Your task to perform on an android device: set default search engine in the chrome app Image 0: 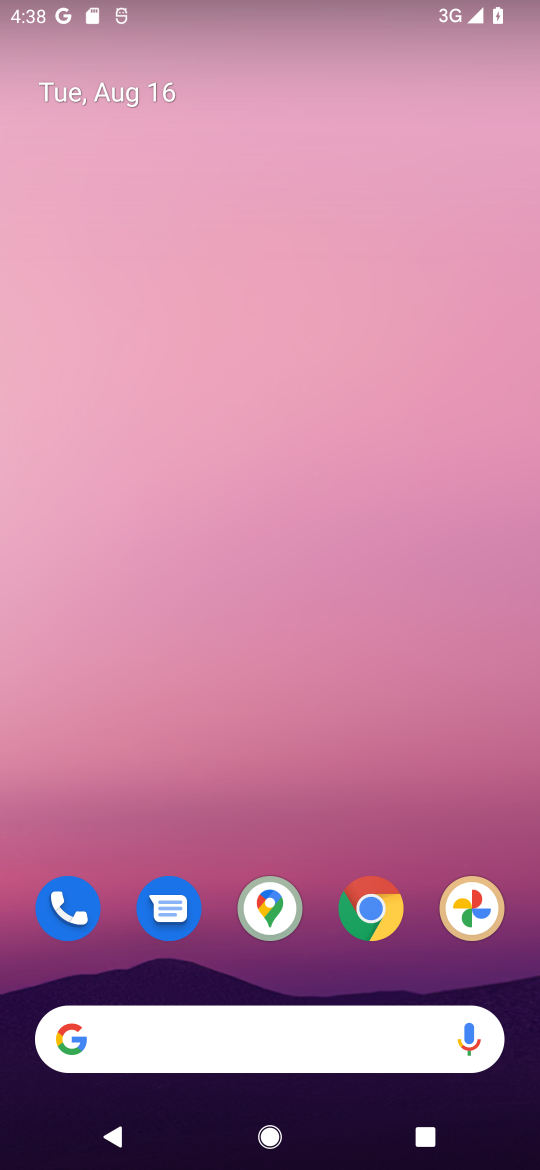
Step 0: click (364, 894)
Your task to perform on an android device: set default search engine in the chrome app Image 1: 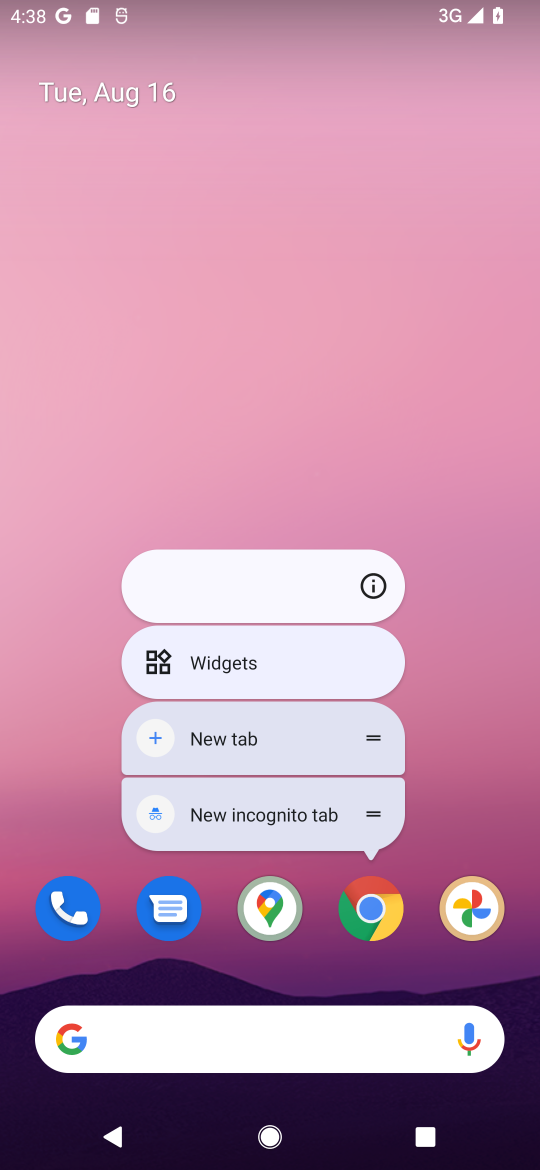
Step 1: click (366, 918)
Your task to perform on an android device: set default search engine in the chrome app Image 2: 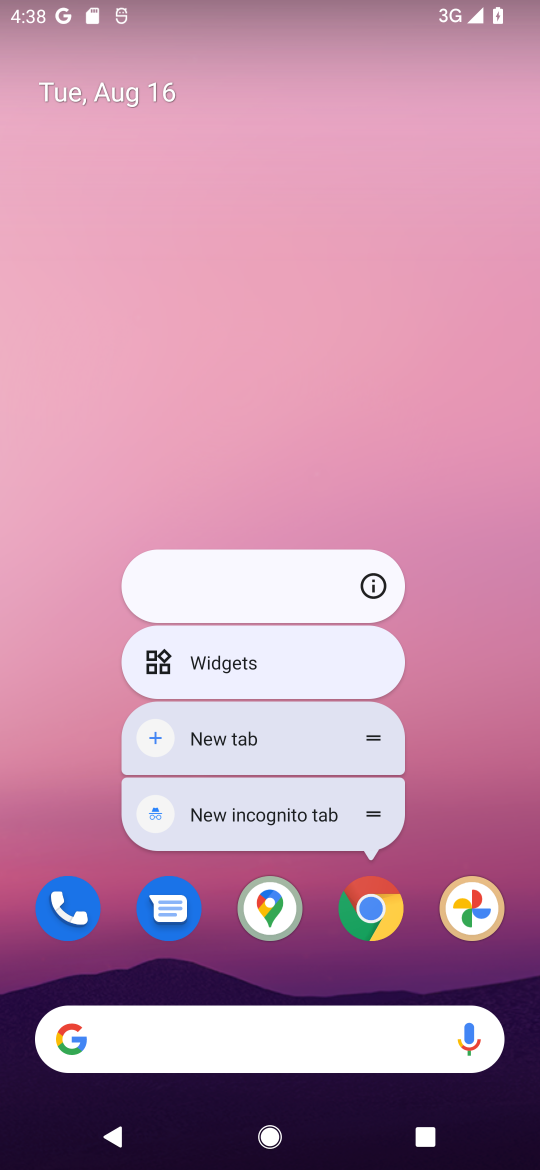
Step 2: click (368, 901)
Your task to perform on an android device: set default search engine in the chrome app Image 3: 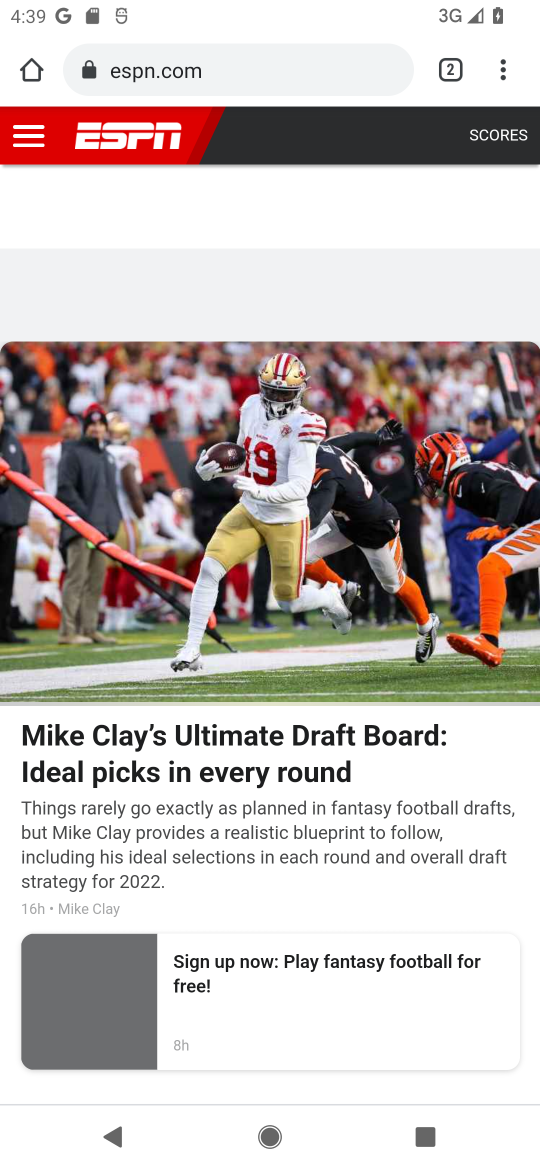
Step 3: drag from (507, 61) to (332, 964)
Your task to perform on an android device: set default search engine in the chrome app Image 4: 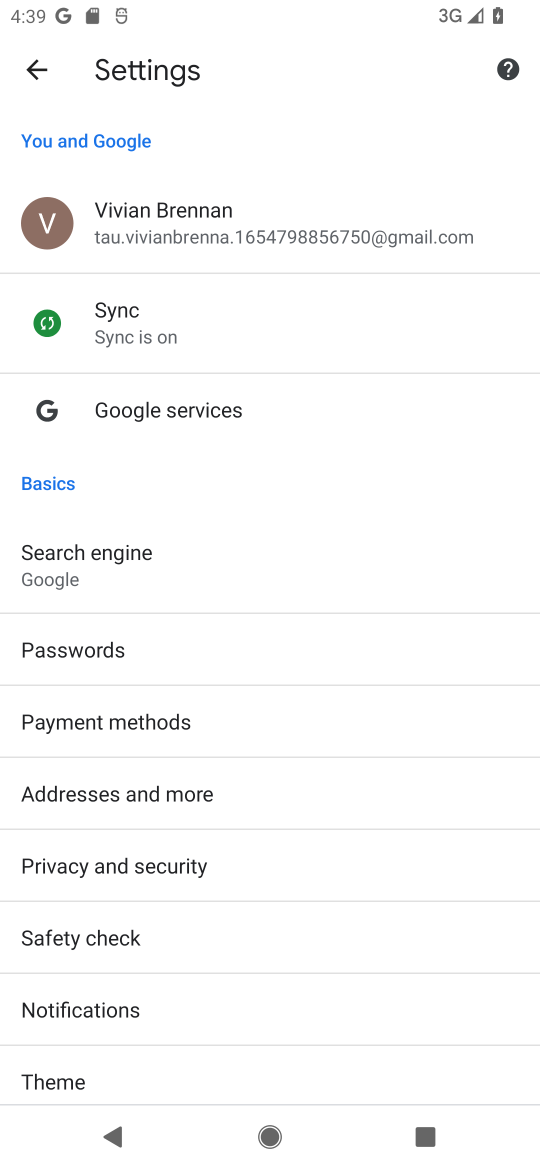
Step 4: drag from (191, 1048) to (313, 637)
Your task to perform on an android device: set default search engine in the chrome app Image 5: 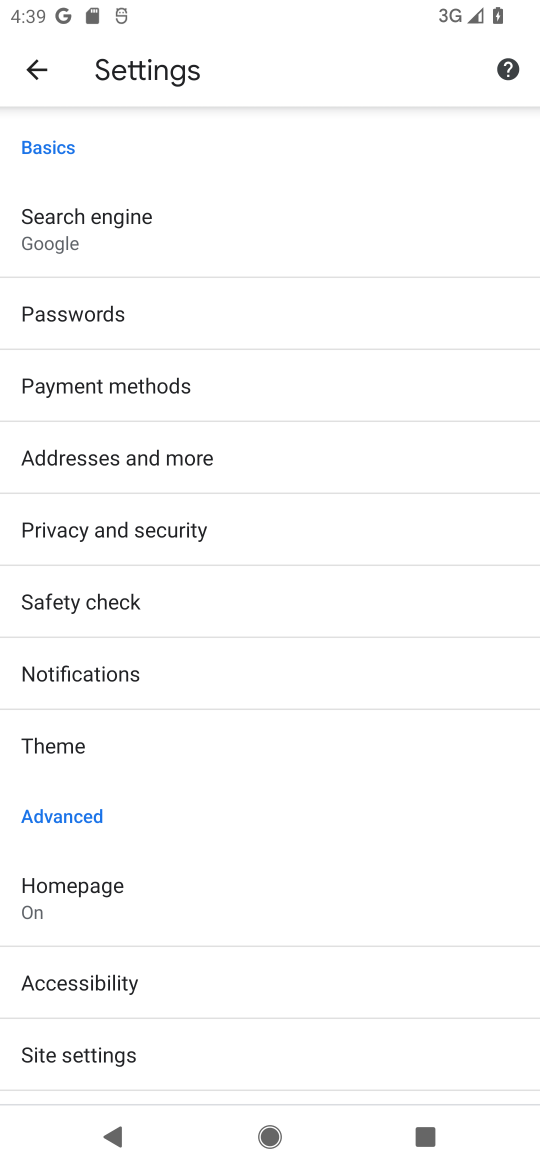
Step 5: click (94, 213)
Your task to perform on an android device: set default search engine in the chrome app Image 6: 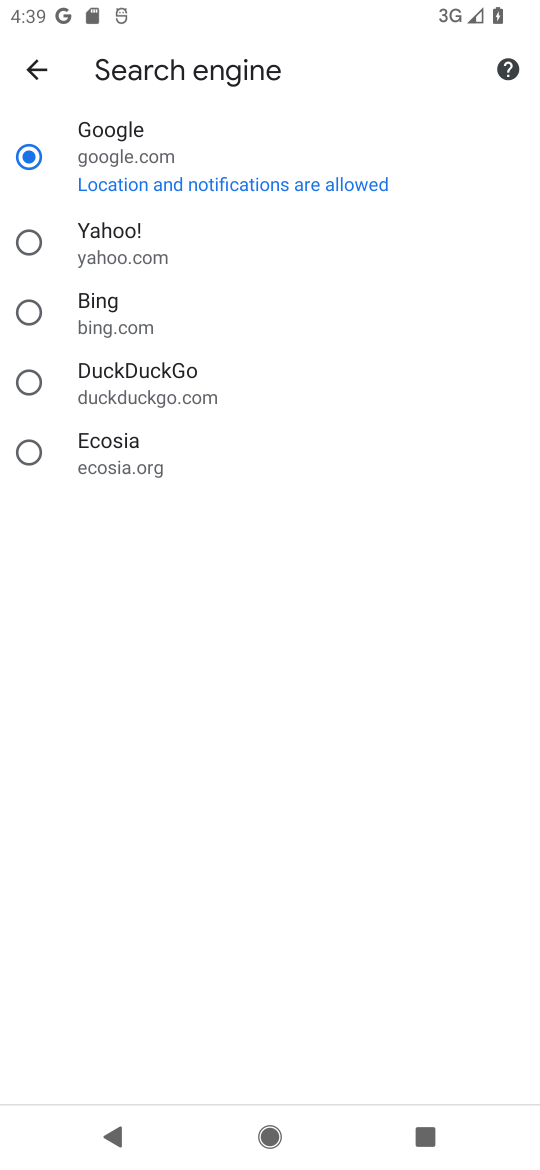
Step 6: click (99, 244)
Your task to perform on an android device: set default search engine in the chrome app Image 7: 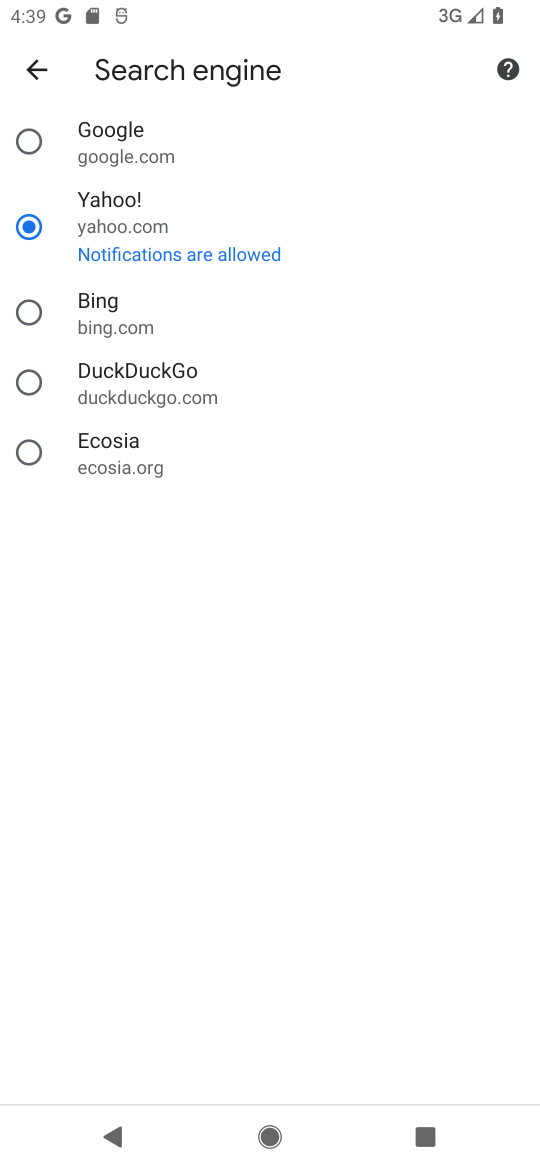
Step 7: task complete